Your task to perform on an android device: Go to Google maps Image 0: 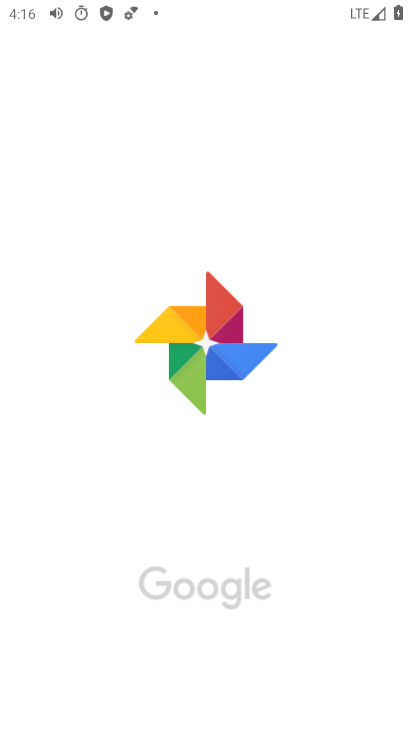
Step 0: drag from (237, 500) to (122, 84)
Your task to perform on an android device: Go to Google maps Image 1: 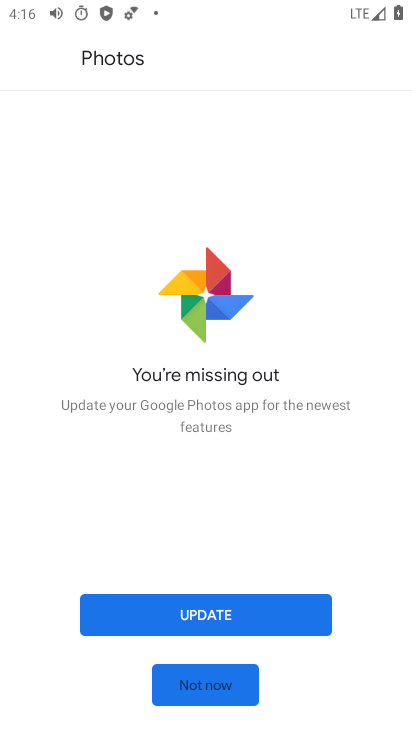
Step 1: press home button
Your task to perform on an android device: Go to Google maps Image 2: 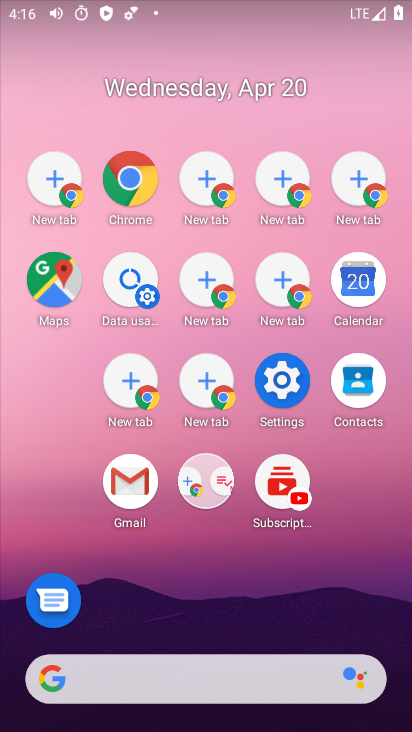
Step 2: drag from (232, 703) to (3, 33)
Your task to perform on an android device: Go to Google maps Image 3: 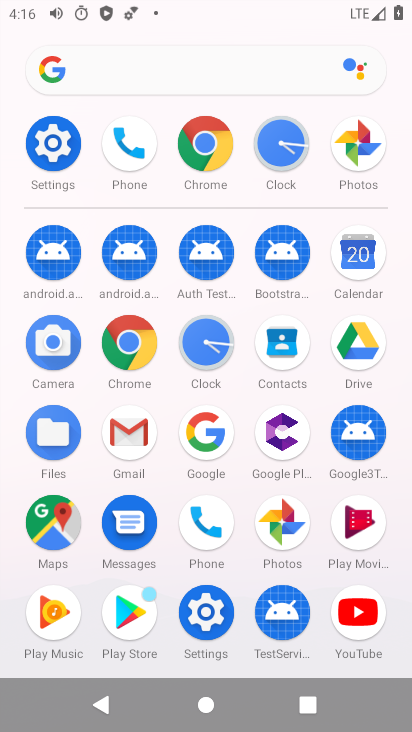
Step 3: click (22, 518)
Your task to perform on an android device: Go to Google maps Image 4: 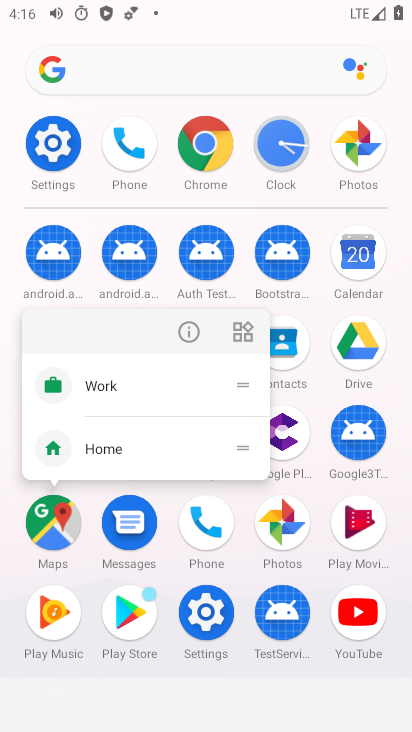
Step 4: click (35, 512)
Your task to perform on an android device: Go to Google maps Image 5: 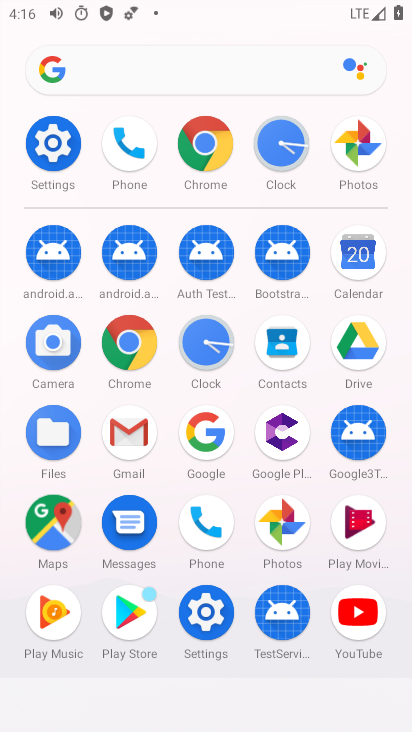
Step 5: click (61, 522)
Your task to perform on an android device: Go to Google maps Image 6: 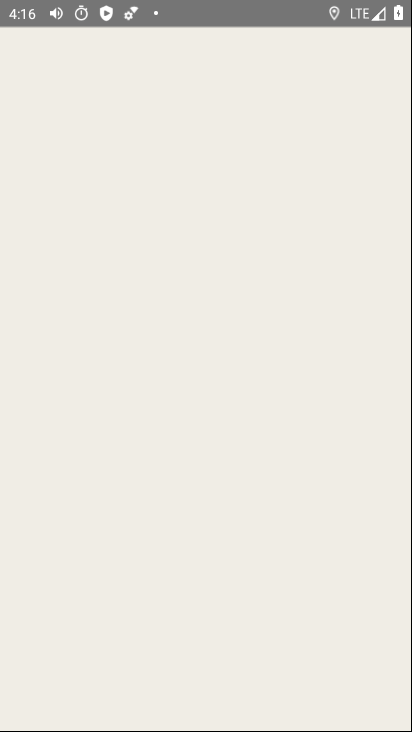
Step 6: click (54, 505)
Your task to perform on an android device: Go to Google maps Image 7: 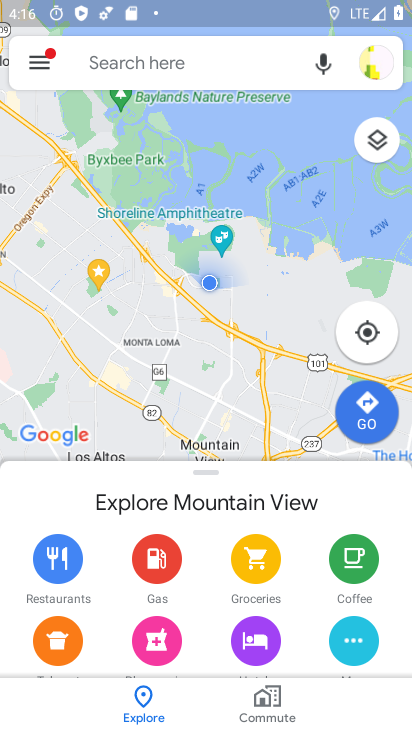
Step 7: task complete